Your task to perform on an android device: manage bookmarks in the chrome app Image 0: 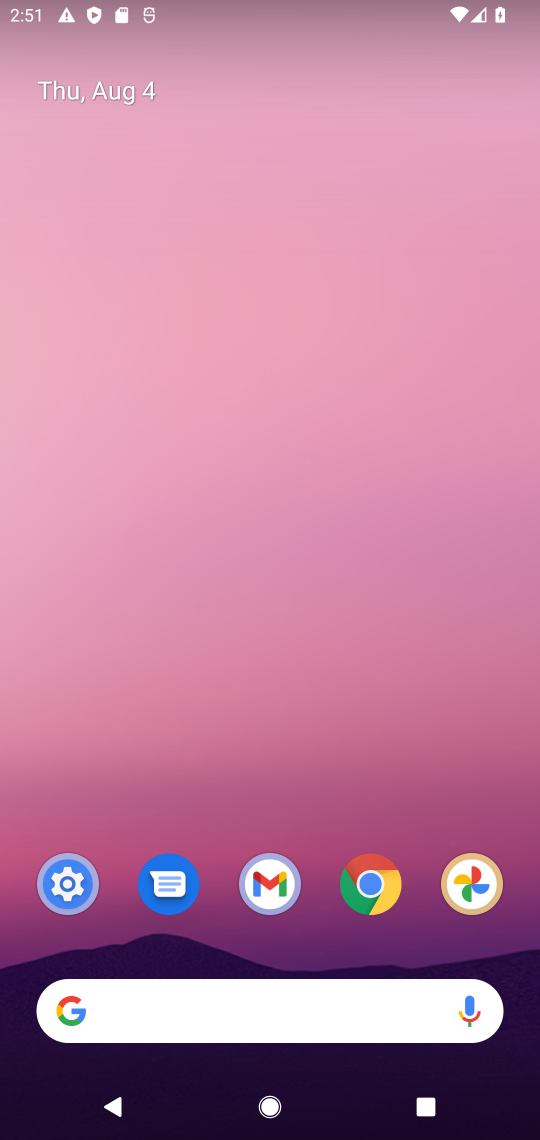
Step 0: press home button
Your task to perform on an android device: manage bookmarks in the chrome app Image 1: 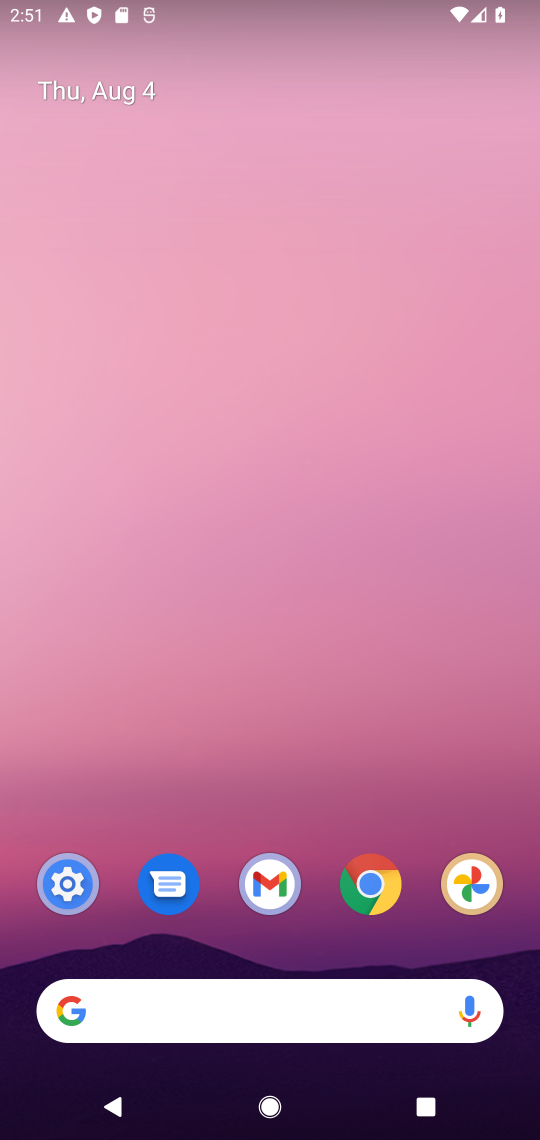
Step 1: drag from (415, 819) to (423, 276)
Your task to perform on an android device: manage bookmarks in the chrome app Image 2: 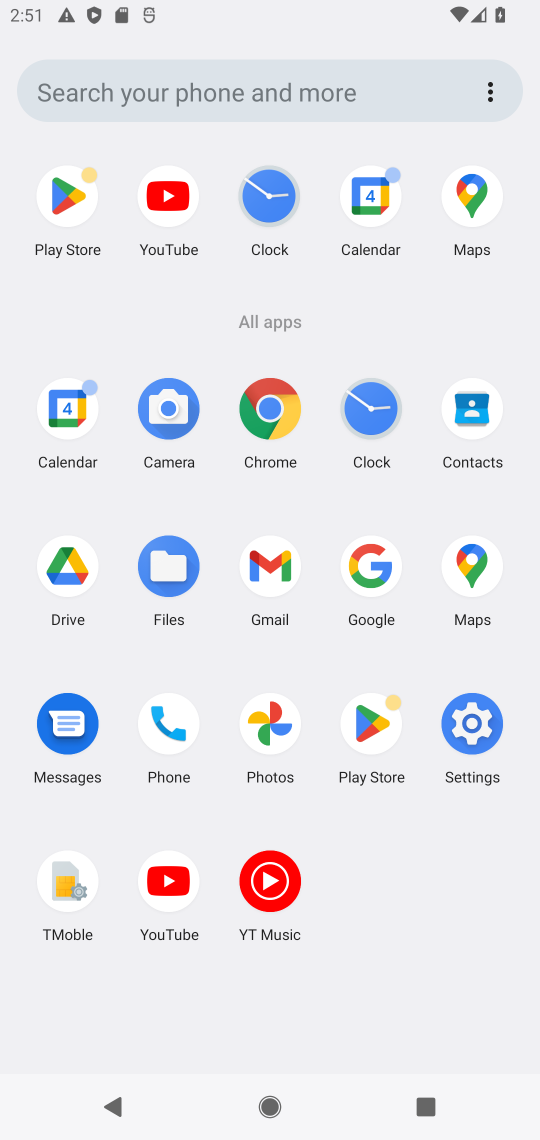
Step 2: click (273, 397)
Your task to perform on an android device: manage bookmarks in the chrome app Image 3: 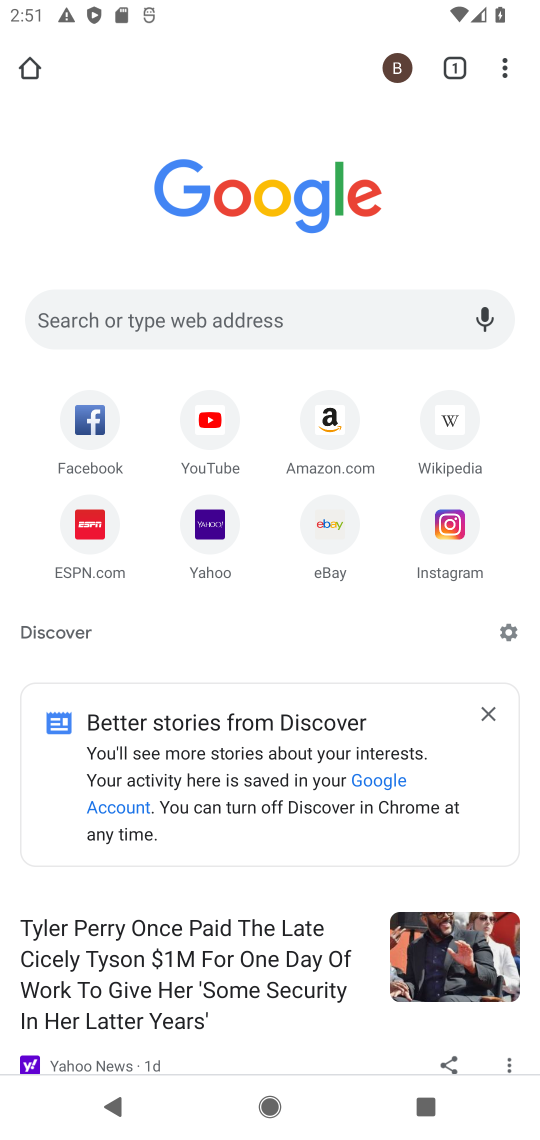
Step 3: click (506, 73)
Your task to perform on an android device: manage bookmarks in the chrome app Image 4: 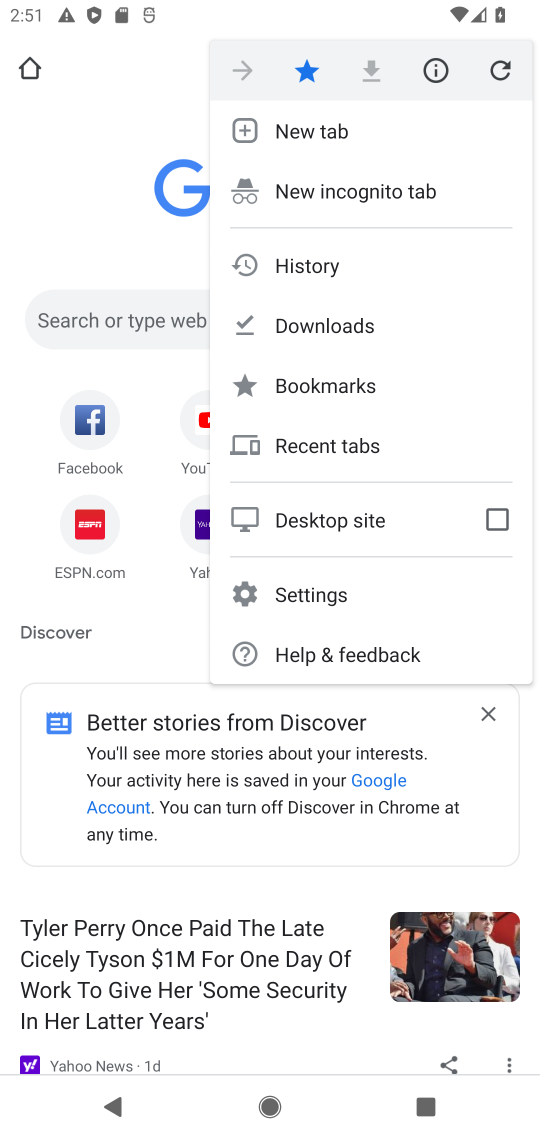
Step 4: click (355, 389)
Your task to perform on an android device: manage bookmarks in the chrome app Image 5: 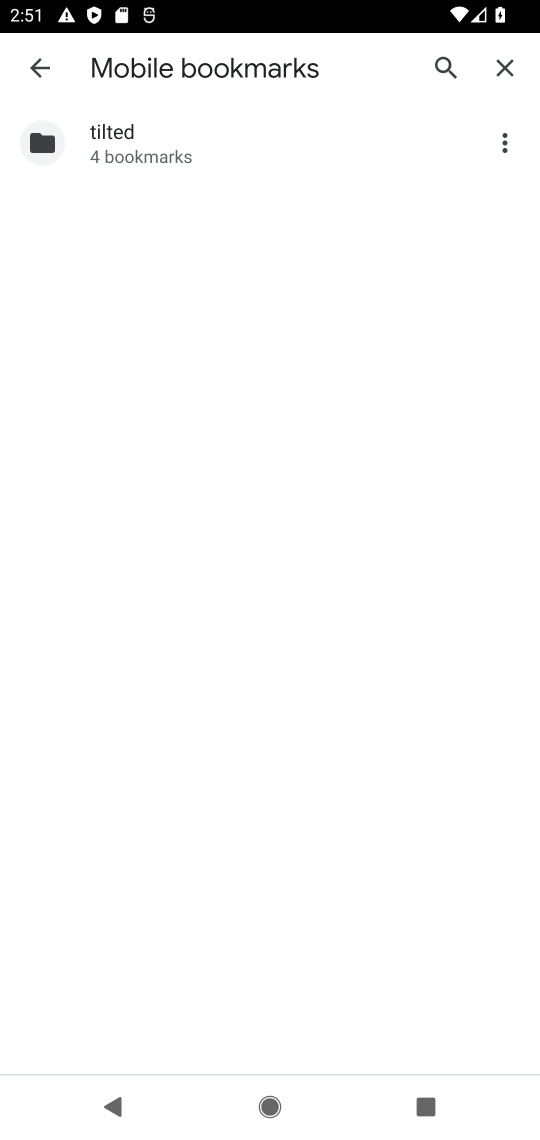
Step 5: click (509, 145)
Your task to perform on an android device: manage bookmarks in the chrome app Image 6: 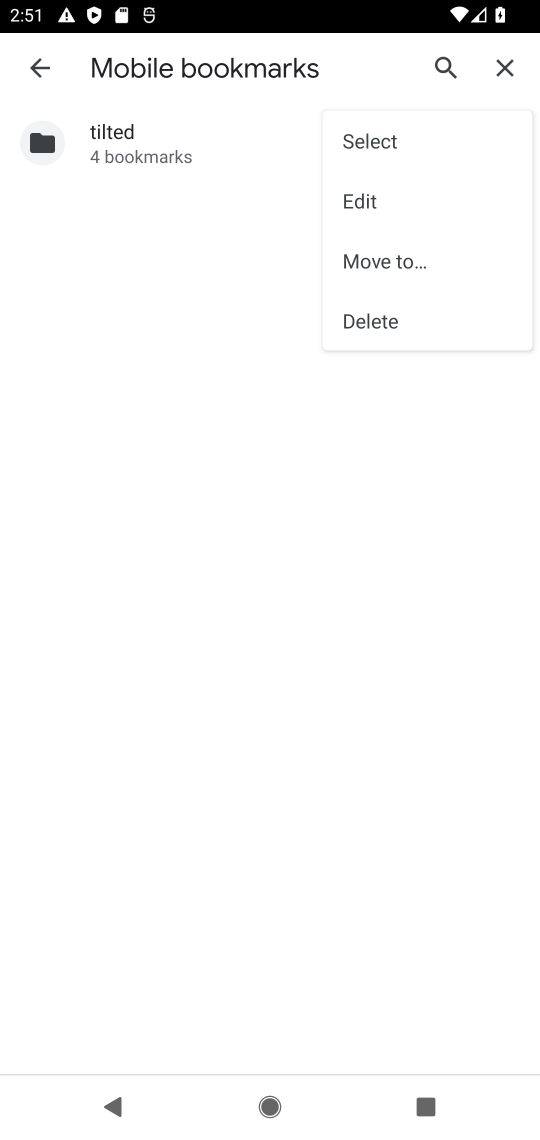
Step 6: click (390, 201)
Your task to perform on an android device: manage bookmarks in the chrome app Image 7: 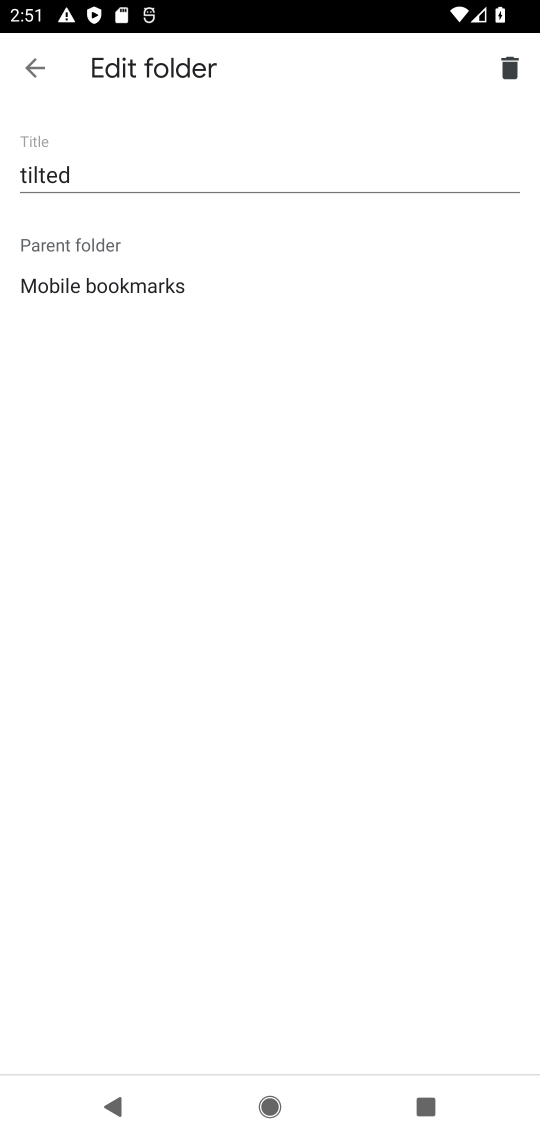
Step 7: click (237, 168)
Your task to perform on an android device: manage bookmarks in the chrome app Image 8: 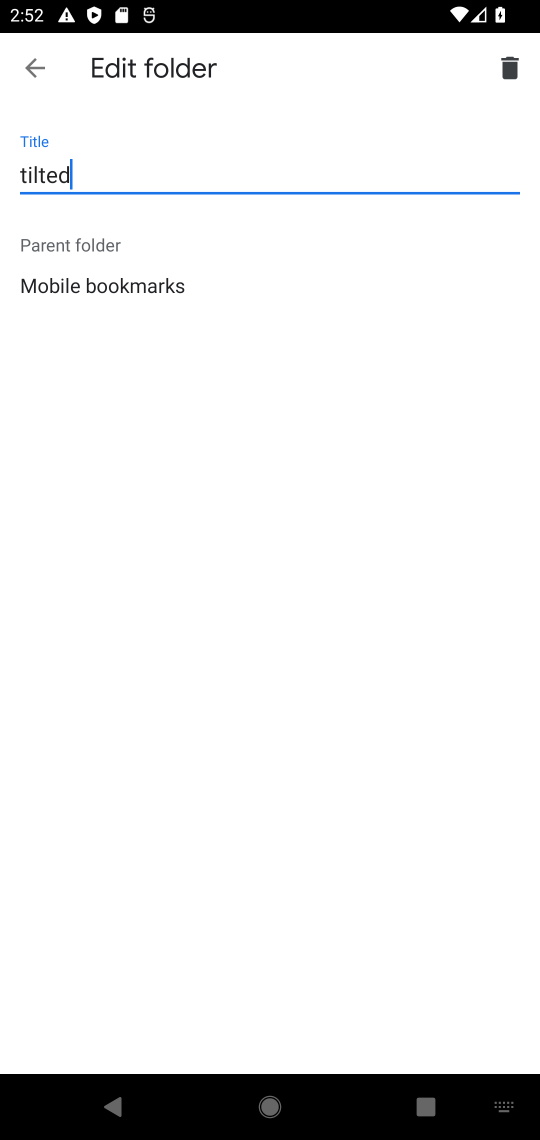
Step 8: type "d"
Your task to perform on an android device: manage bookmarks in the chrome app Image 9: 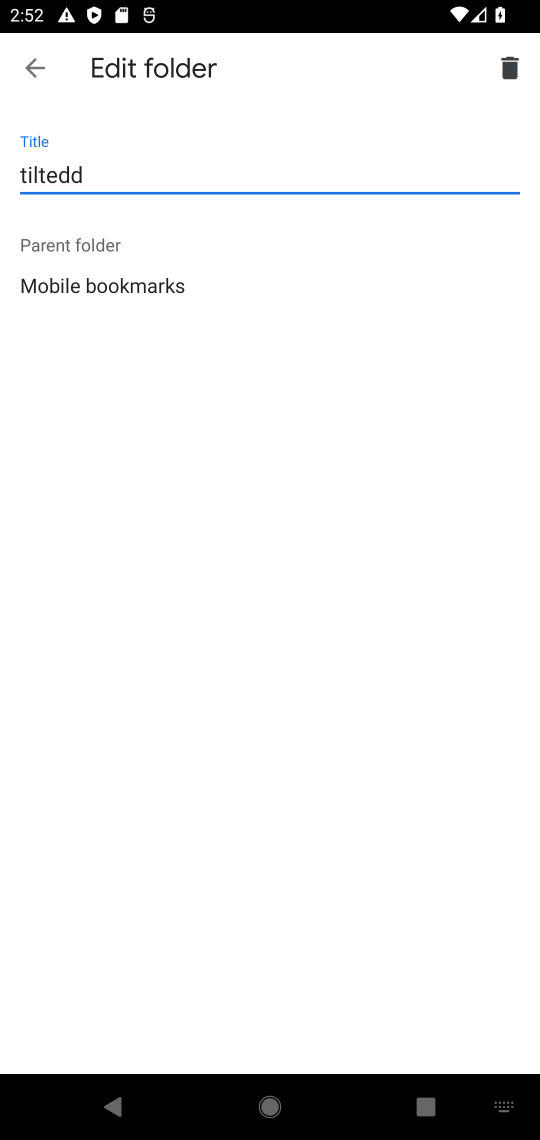
Step 9: click (40, 68)
Your task to perform on an android device: manage bookmarks in the chrome app Image 10: 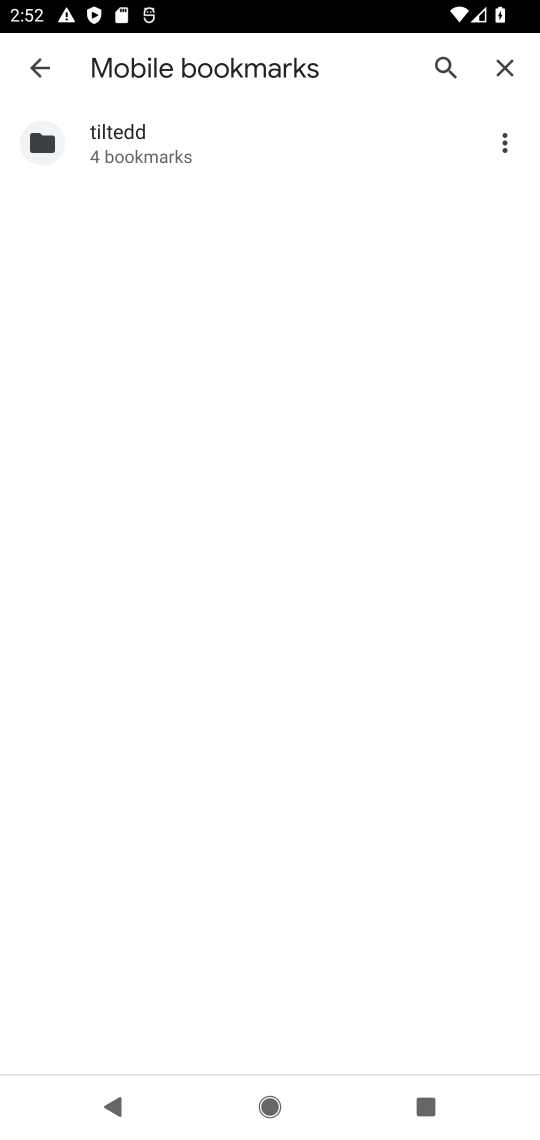
Step 10: task complete